Your task to perform on an android device: Open the map Image 0: 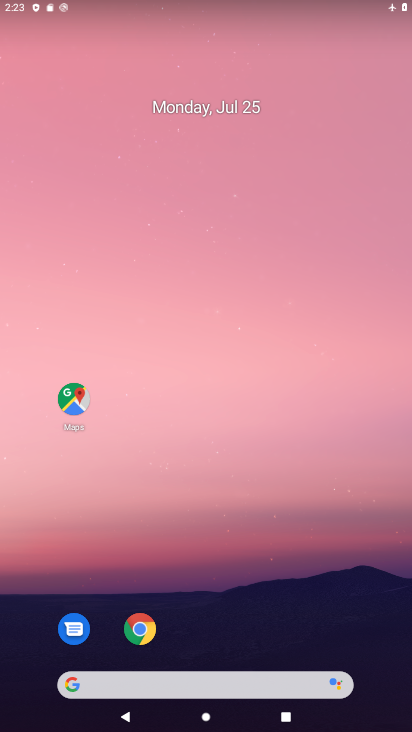
Step 0: drag from (259, 690) to (203, 162)
Your task to perform on an android device: Open the map Image 1: 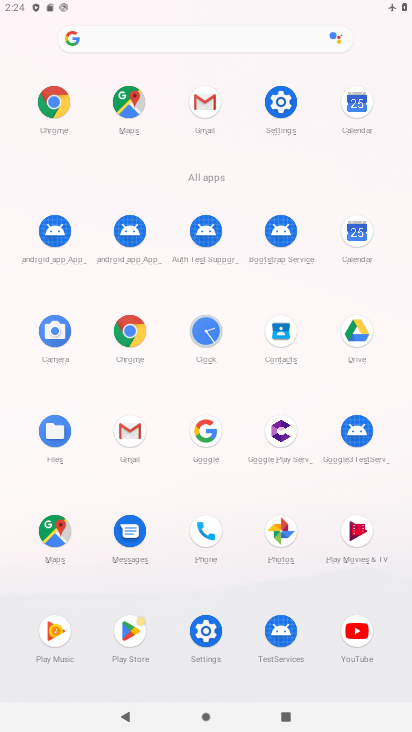
Step 1: click (37, 529)
Your task to perform on an android device: Open the map Image 2: 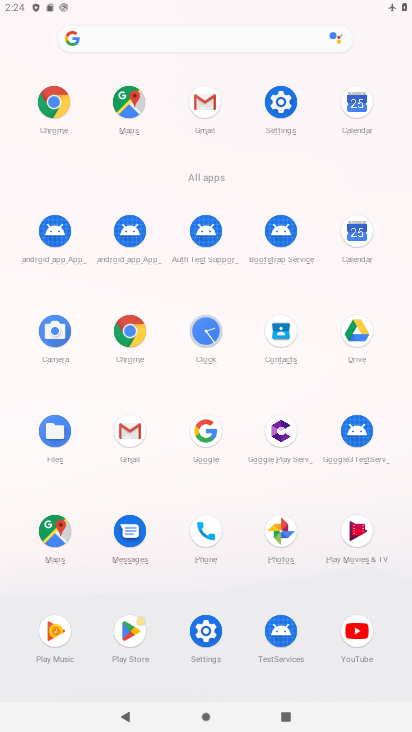
Step 2: click (37, 529)
Your task to perform on an android device: Open the map Image 3: 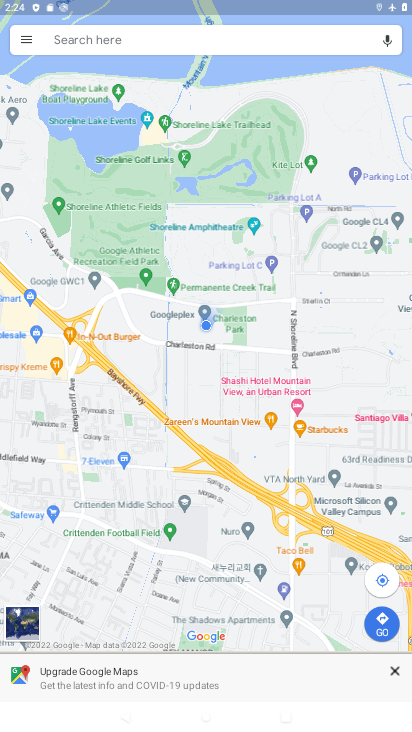
Step 3: task complete